Your task to perform on an android device: toggle pop-ups in chrome Image 0: 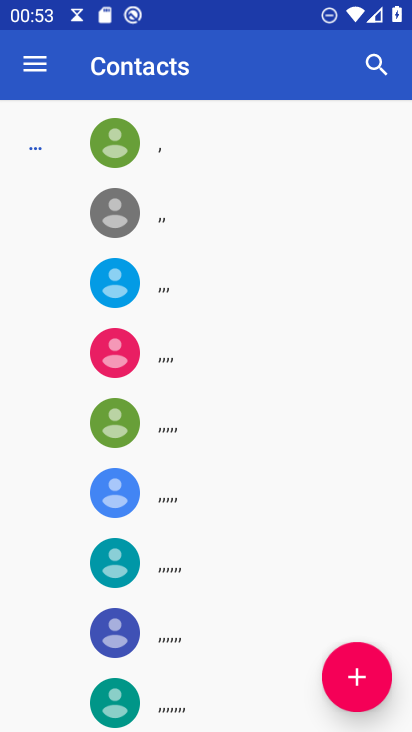
Step 0: press home button
Your task to perform on an android device: toggle pop-ups in chrome Image 1: 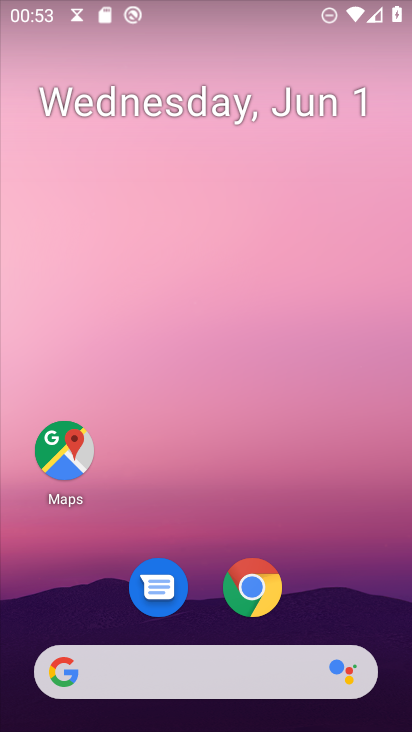
Step 1: click (237, 591)
Your task to perform on an android device: toggle pop-ups in chrome Image 2: 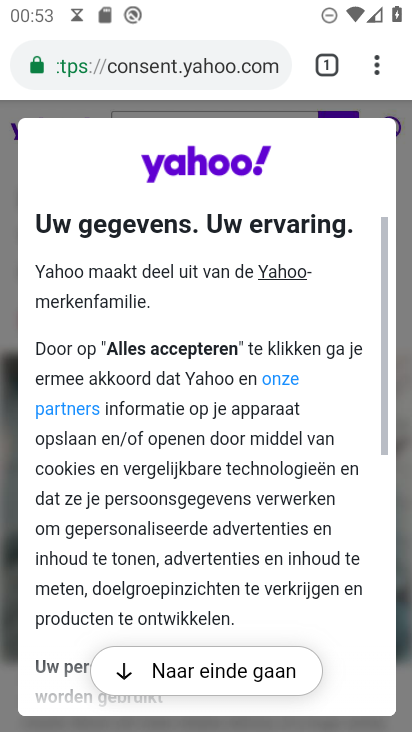
Step 2: click (370, 64)
Your task to perform on an android device: toggle pop-ups in chrome Image 3: 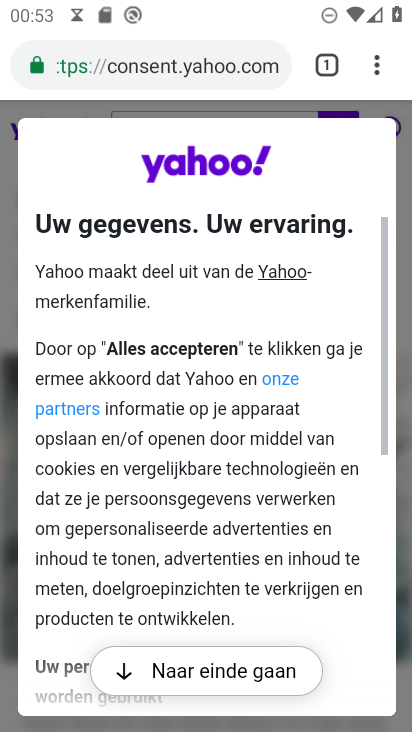
Step 3: click (370, 64)
Your task to perform on an android device: toggle pop-ups in chrome Image 4: 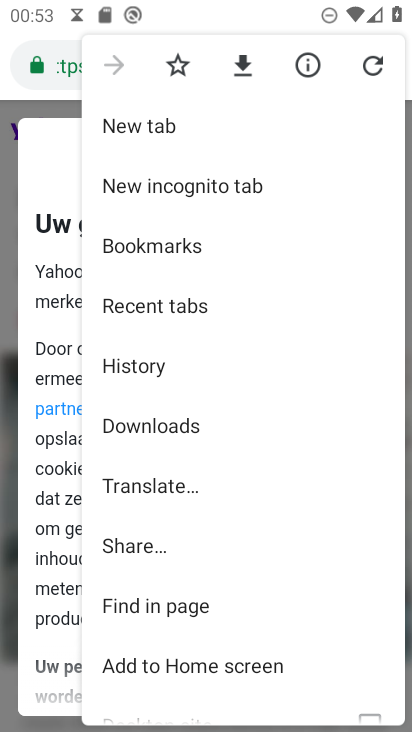
Step 4: drag from (234, 610) to (235, 166)
Your task to perform on an android device: toggle pop-ups in chrome Image 5: 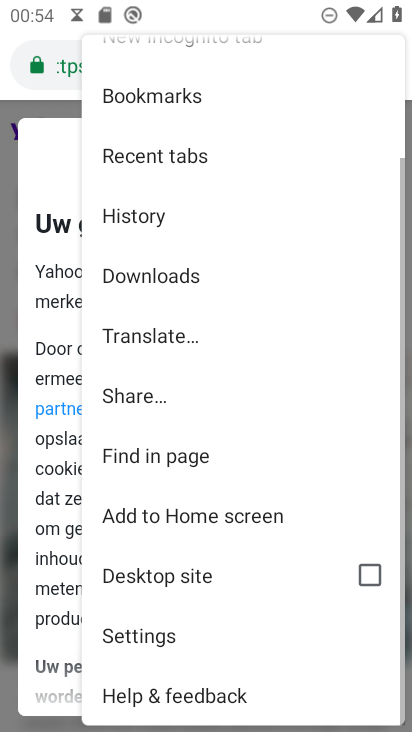
Step 5: click (191, 645)
Your task to perform on an android device: toggle pop-ups in chrome Image 6: 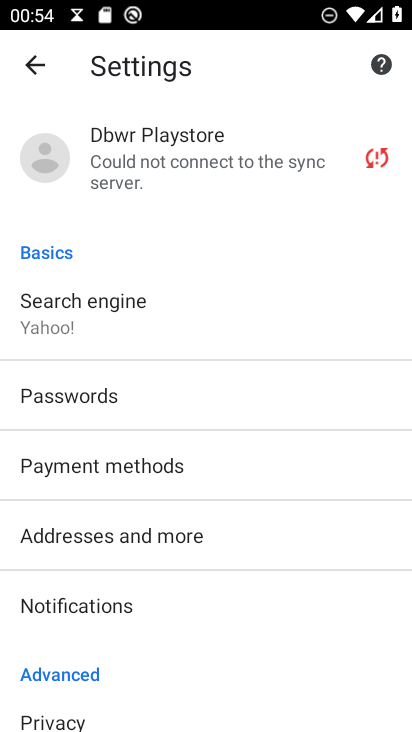
Step 6: drag from (168, 670) to (200, 123)
Your task to perform on an android device: toggle pop-ups in chrome Image 7: 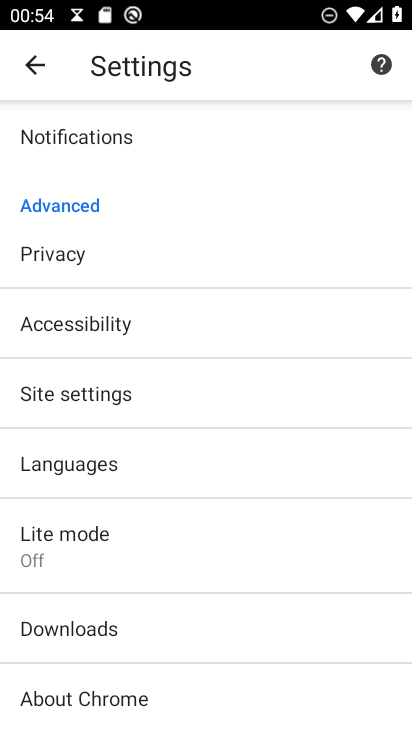
Step 7: click (119, 387)
Your task to perform on an android device: toggle pop-ups in chrome Image 8: 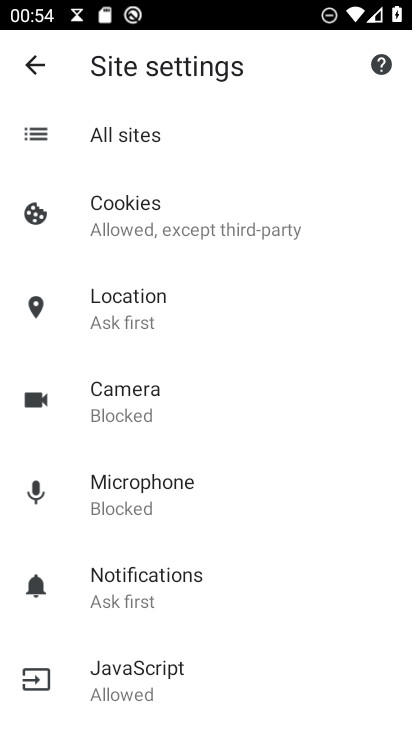
Step 8: drag from (115, 653) to (123, 354)
Your task to perform on an android device: toggle pop-ups in chrome Image 9: 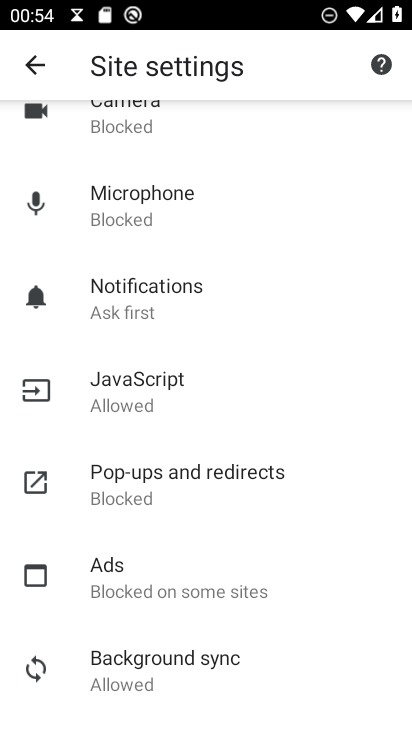
Step 9: click (140, 499)
Your task to perform on an android device: toggle pop-ups in chrome Image 10: 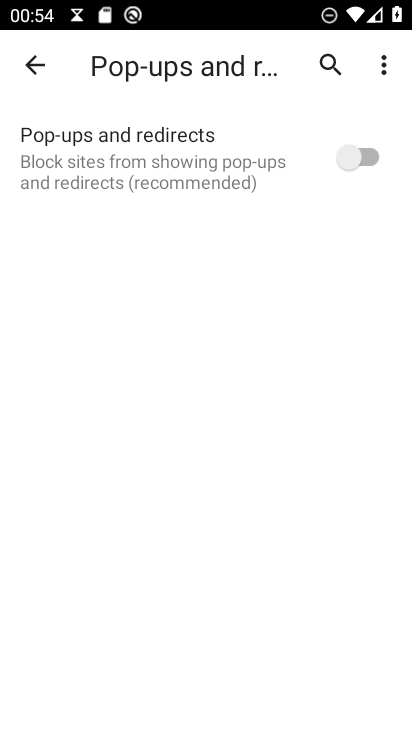
Step 10: click (349, 148)
Your task to perform on an android device: toggle pop-ups in chrome Image 11: 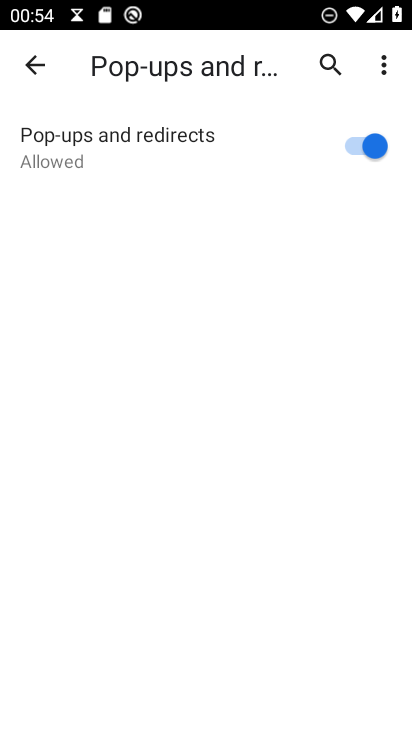
Step 11: task complete